Your task to perform on an android device: Open sound settings Image 0: 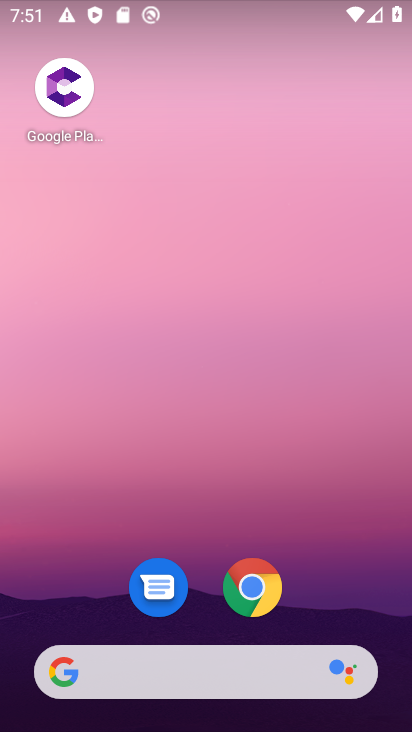
Step 0: drag from (41, 712) to (301, 101)
Your task to perform on an android device: Open sound settings Image 1: 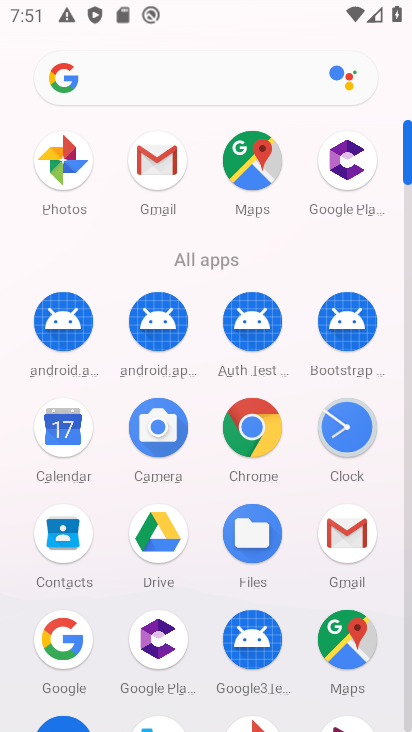
Step 1: drag from (208, 691) to (224, 395)
Your task to perform on an android device: Open sound settings Image 2: 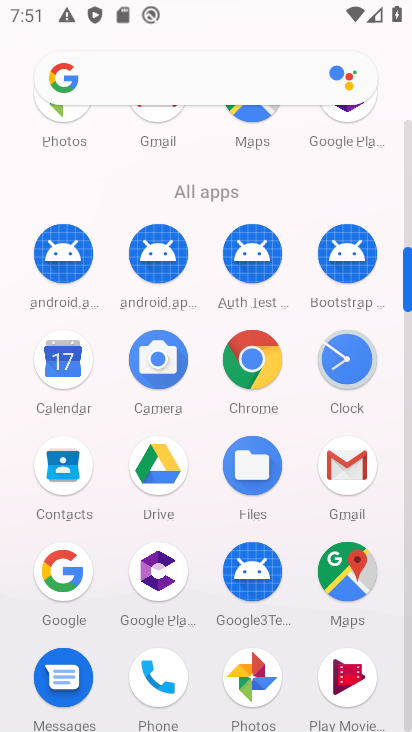
Step 2: drag from (391, 685) to (196, 6)
Your task to perform on an android device: Open sound settings Image 3: 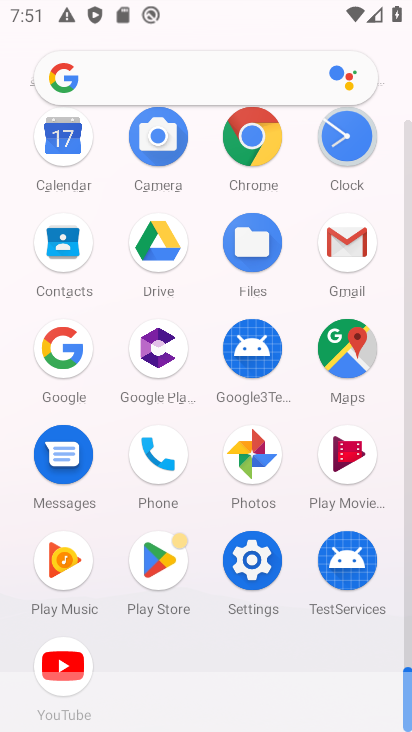
Step 3: click (256, 575)
Your task to perform on an android device: Open sound settings Image 4: 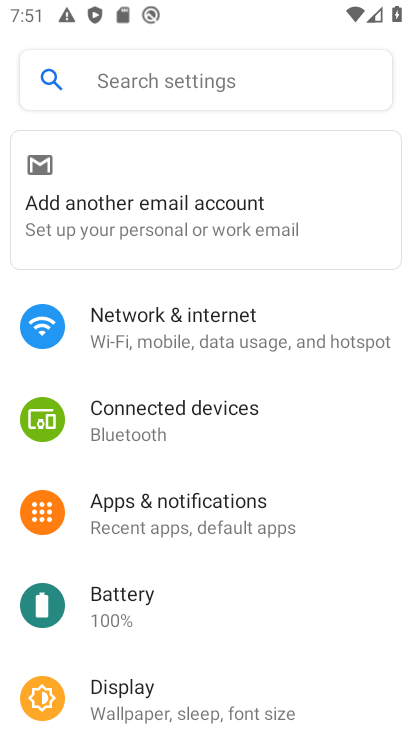
Step 4: drag from (364, 662) to (372, 313)
Your task to perform on an android device: Open sound settings Image 5: 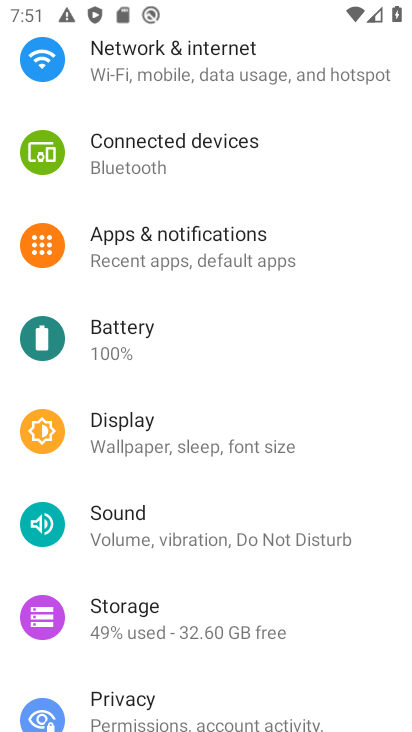
Step 5: drag from (357, 683) to (195, 274)
Your task to perform on an android device: Open sound settings Image 6: 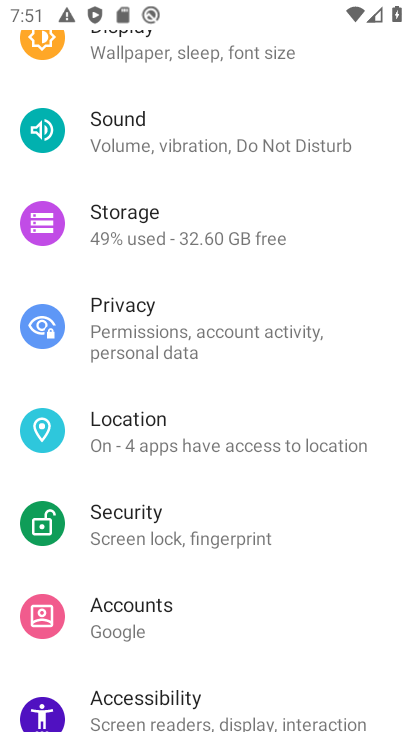
Step 6: click (163, 131)
Your task to perform on an android device: Open sound settings Image 7: 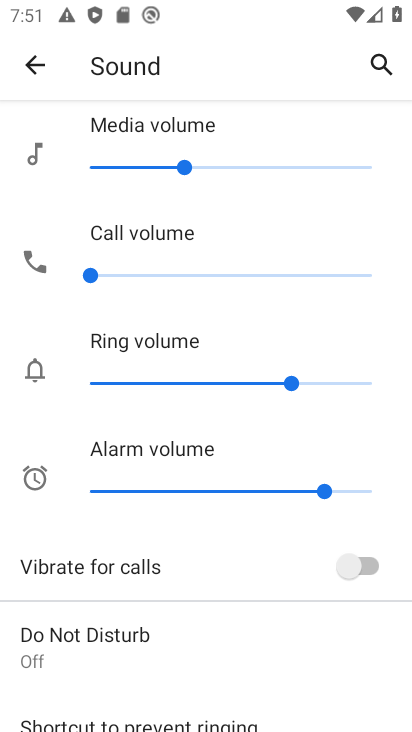
Step 7: task complete